Your task to perform on an android device: change the clock display to digital Image 0: 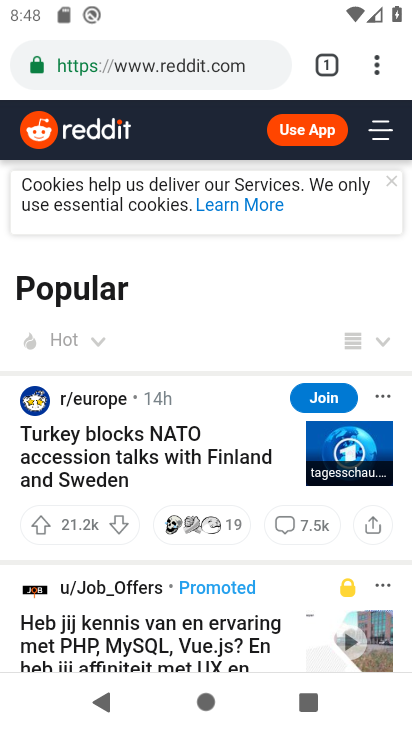
Step 0: press home button
Your task to perform on an android device: change the clock display to digital Image 1: 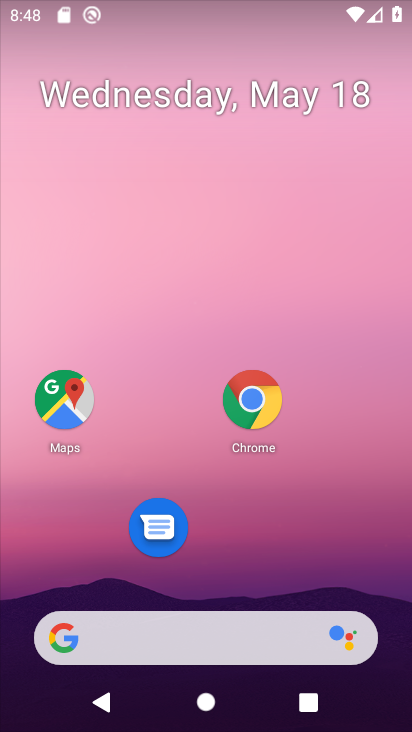
Step 1: drag from (270, 572) to (190, 167)
Your task to perform on an android device: change the clock display to digital Image 2: 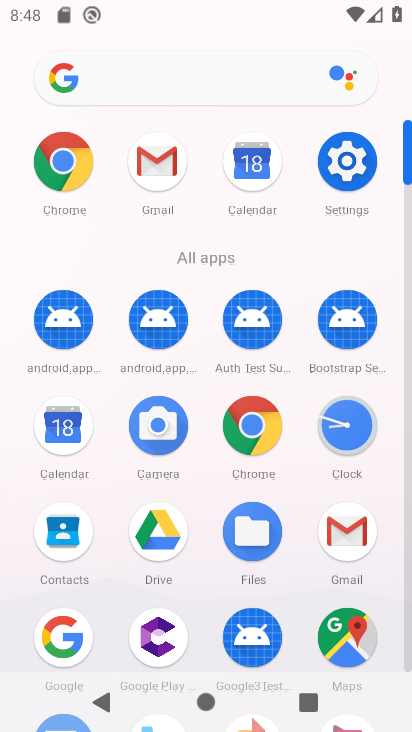
Step 2: click (341, 178)
Your task to perform on an android device: change the clock display to digital Image 3: 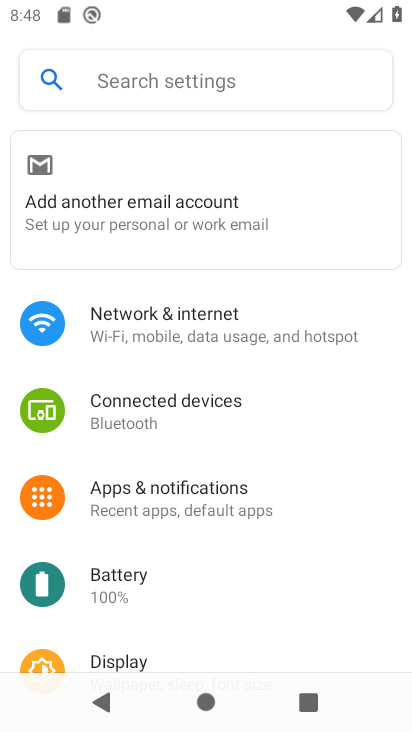
Step 3: press back button
Your task to perform on an android device: change the clock display to digital Image 4: 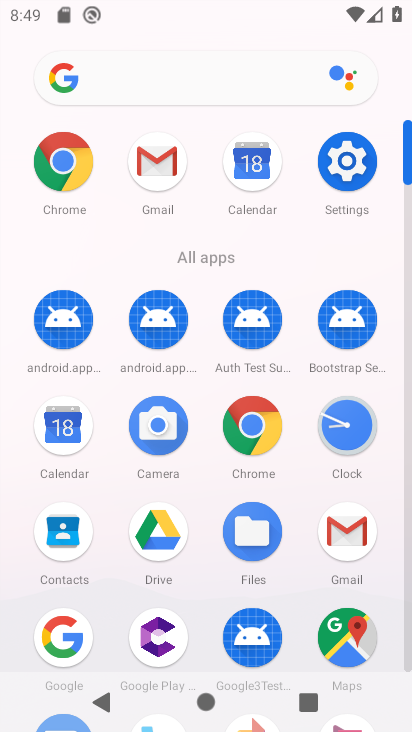
Step 4: click (341, 433)
Your task to perform on an android device: change the clock display to digital Image 5: 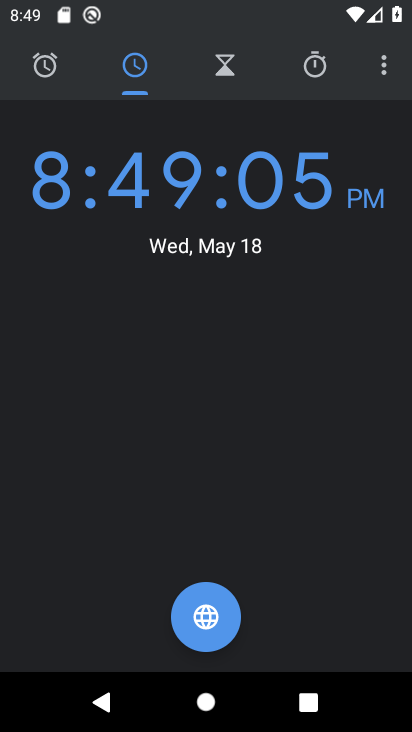
Step 5: click (382, 74)
Your task to perform on an android device: change the clock display to digital Image 6: 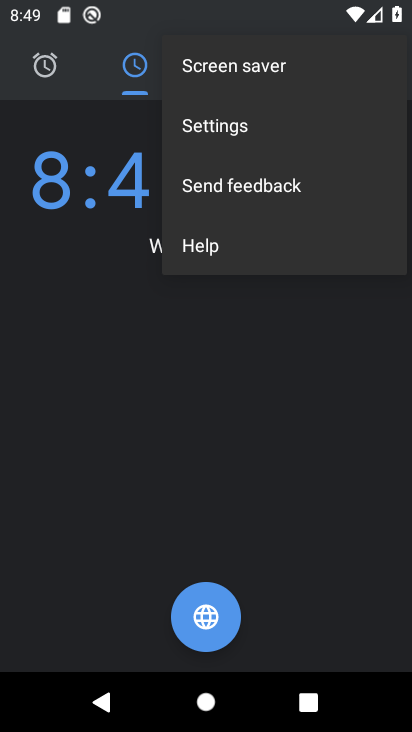
Step 6: click (266, 122)
Your task to perform on an android device: change the clock display to digital Image 7: 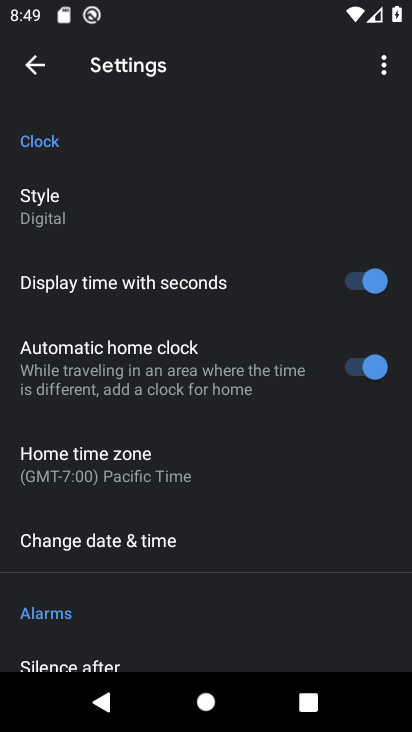
Step 7: task complete